Your task to perform on an android device: Open ESPN.com Image 0: 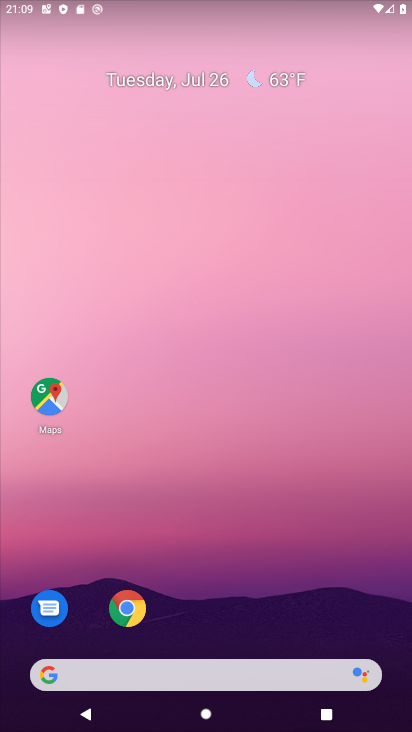
Step 0: click (81, 667)
Your task to perform on an android device: Open ESPN.com Image 1: 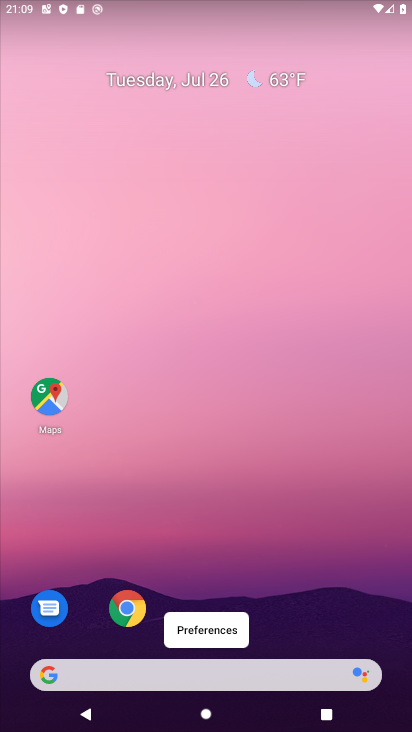
Step 1: click (88, 673)
Your task to perform on an android device: Open ESPN.com Image 2: 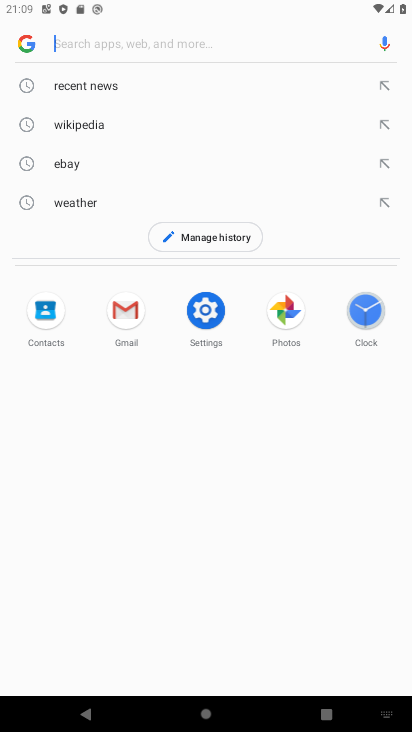
Step 2: type "ESPN.com"
Your task to perform on an android device: Open ESPN.com Image 3: 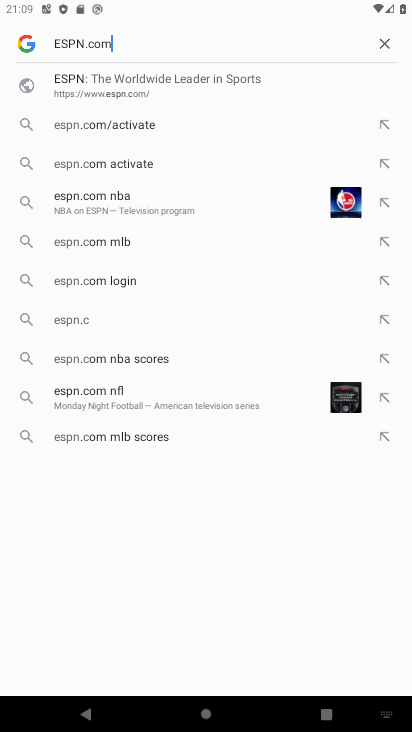
Step 3: type ""
Your task to perform on an android device: Open ESPN.com Image 4: 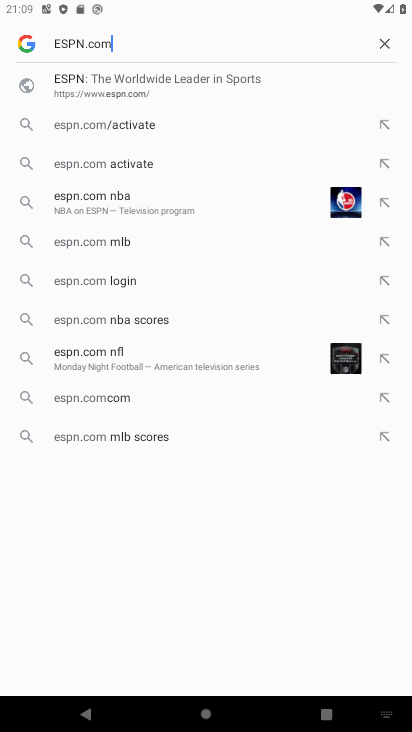
Step 4: task complete